Your task to perform on an android device: Open Google Maps and go to "Timeline" Image 0: 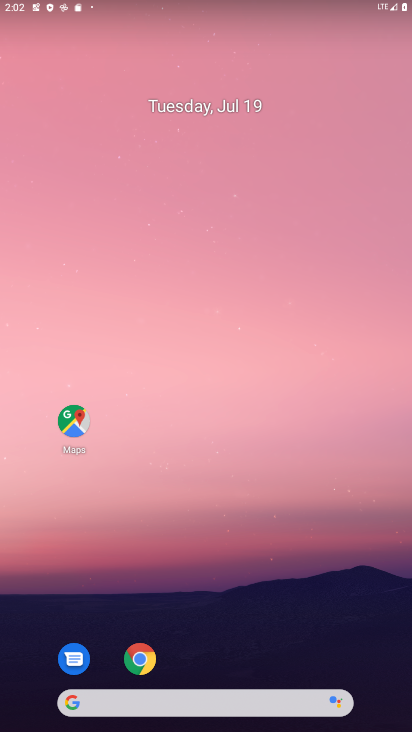
Step 0: click (61, 407)
Your task to perform on an android device: Open Google Maps and go to "Timeline" Image 1: 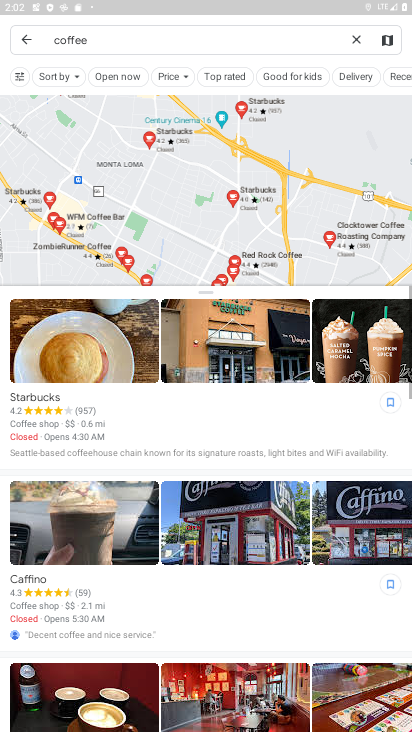
Step 1: click (16, 47)
Your task to perform on an android device: Open Google Maps and go to "Timeline" Image 2: 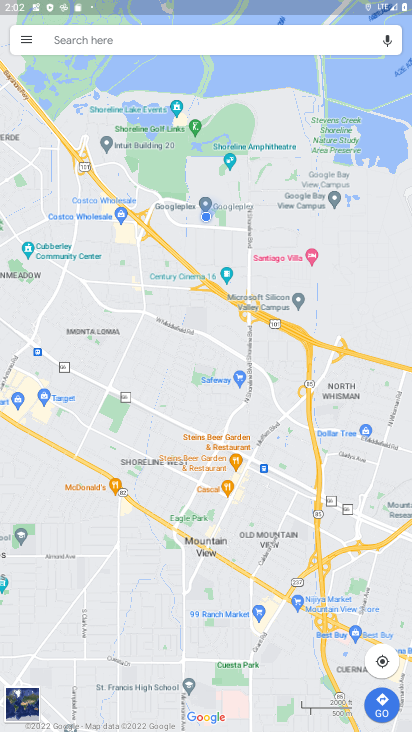
Step 2: click (20, 47)
Your task to perform on an android device: Open Google Maps and go to "Timeline" Image 3: 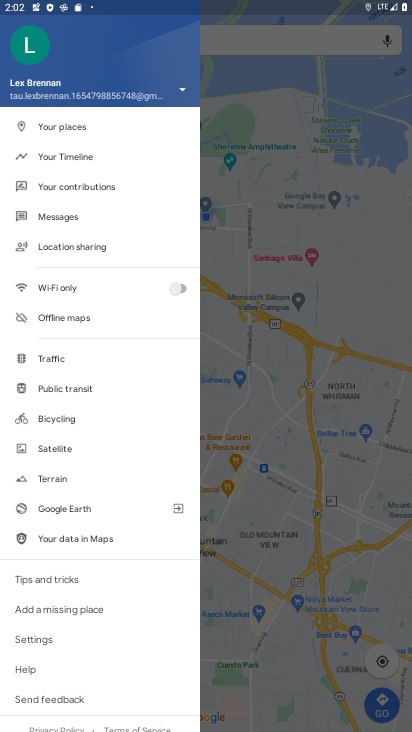
Step 3: click (38, 151)
Your task to perform on an android device: Open Google Maps and go to "Timeline" Image 4: 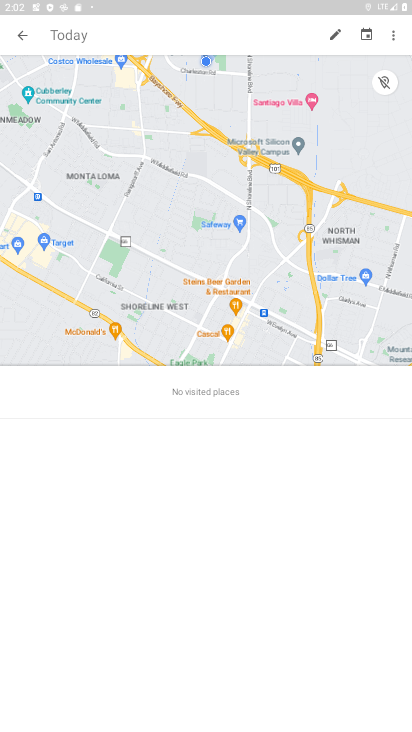
Step 4: task complete